Your task to perform on an android device: Find coffee shops on Maps Image 0: 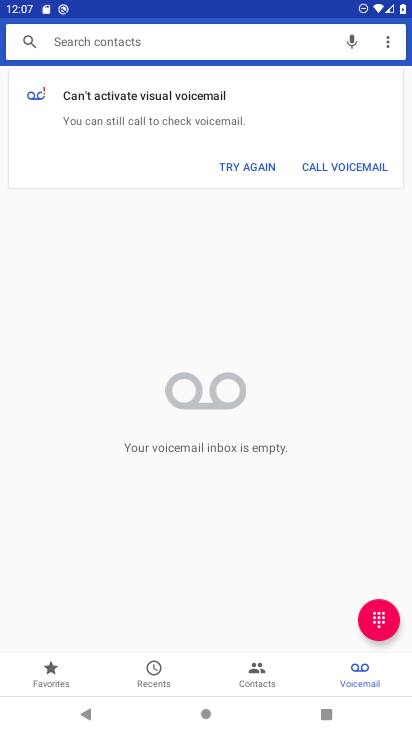
Step 0: press home button
Your task to perform on an android device: Find coffee shops on Maps Image 1: 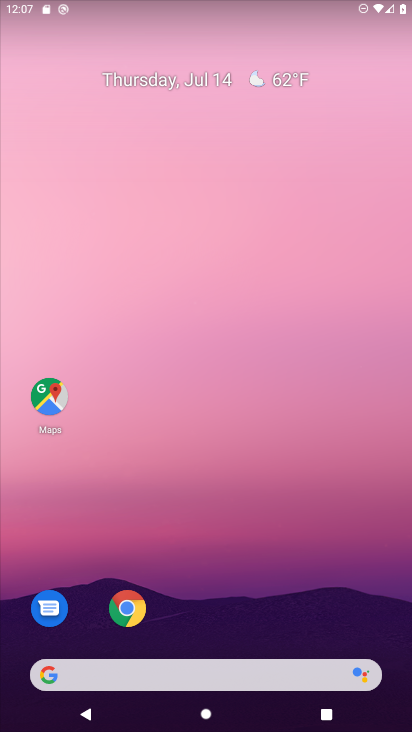
Step 1: drag from (241, 720) to (213, 175)
Your task to perform on an android device: Find coffee shops on Maps Image 2: 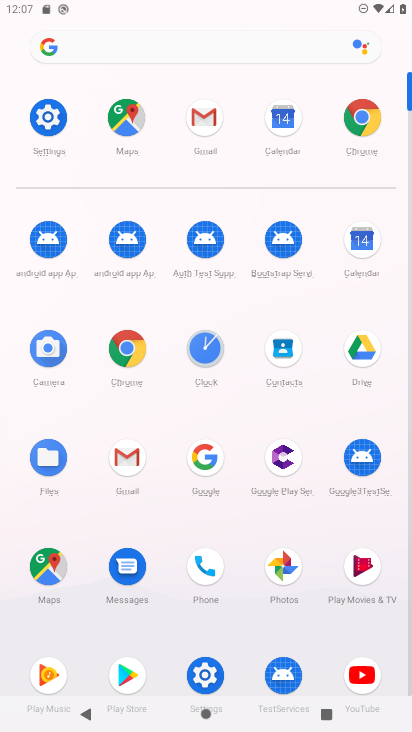
Step 2: click (47, 570)
Your task to perform on an android device: Find coffee shops on Maps Image 3: 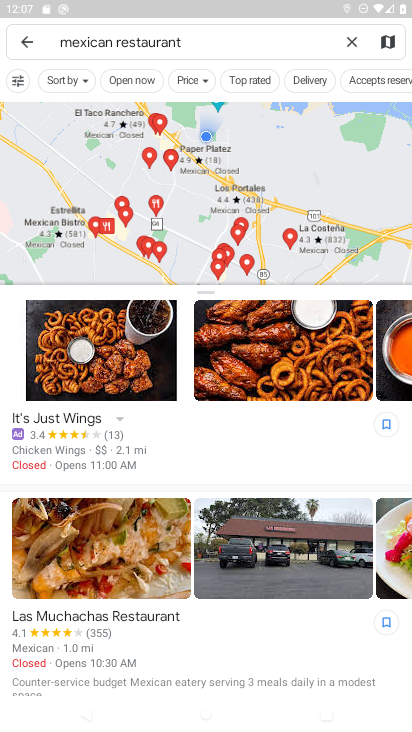
Step 3: click (349, 41)
Your task to perform on an android device: Find coffee shops on Maps Image 4: 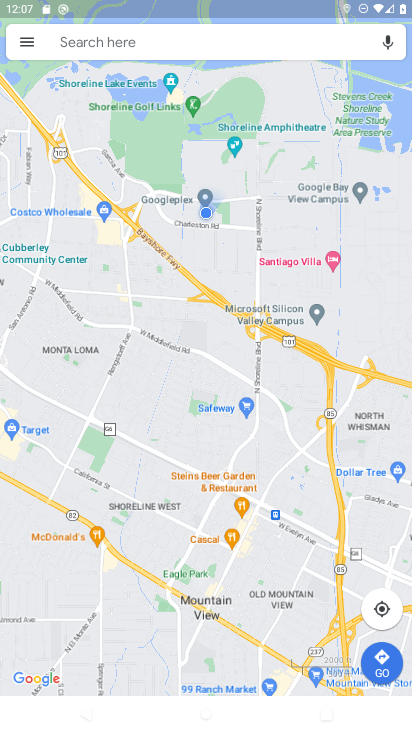
Step 4: click (251, 48)
Your task to perform on an android device: Find coffee shops on Maps Image 5: 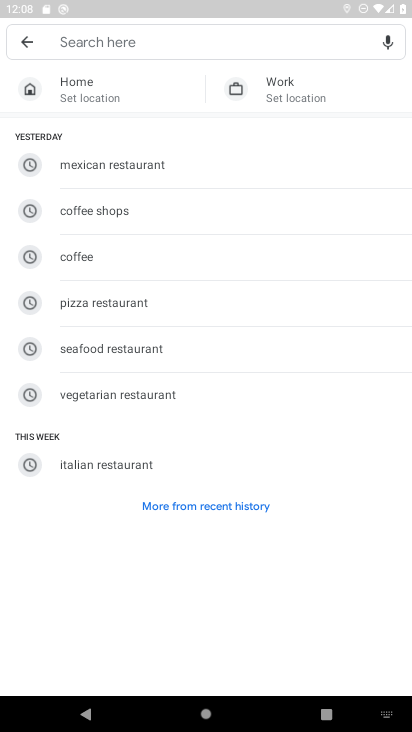
Step 5: type "coffee shops"
Your task to perform on an android device: Find coffee shops on Maps Image 6: 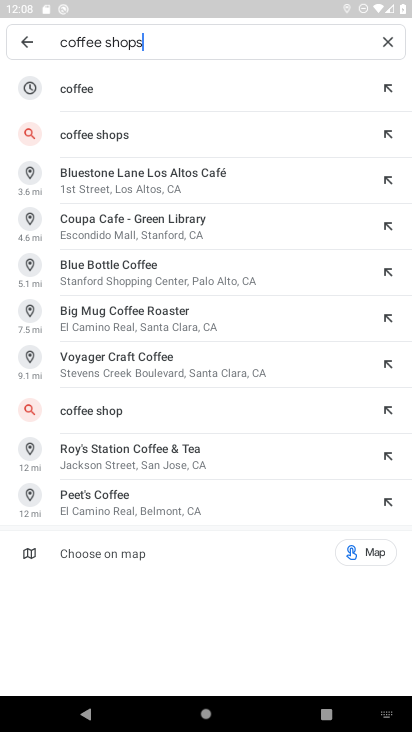
Step 6: click (109, 136)
Your task to perform on an android device: Find coffee shops on Maps Image 7: 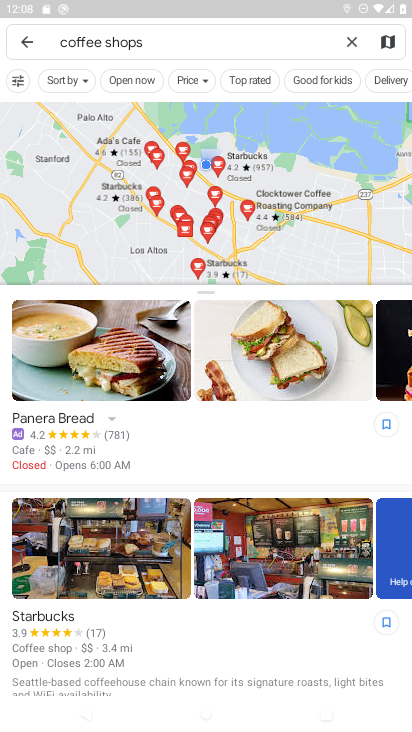
Step 7: task complete